Your task to perform on an android device: open app "Booking.com: Hotels and more" Image 0: 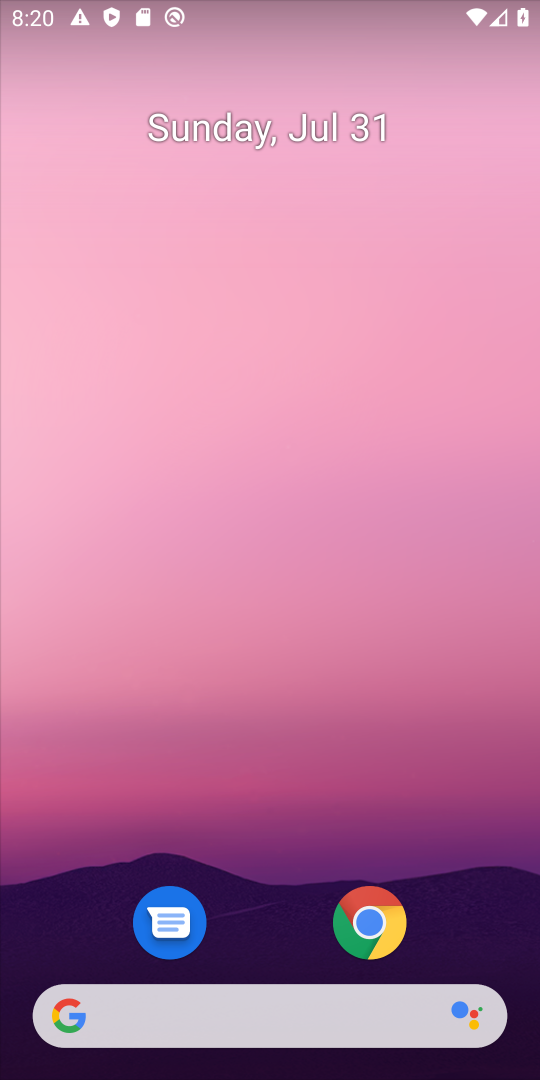
Step 0: drag from (300, 1057) to (249, 488)
Your task to perform on an android device: open app "Booking.com: Hotels and more" Image 1: 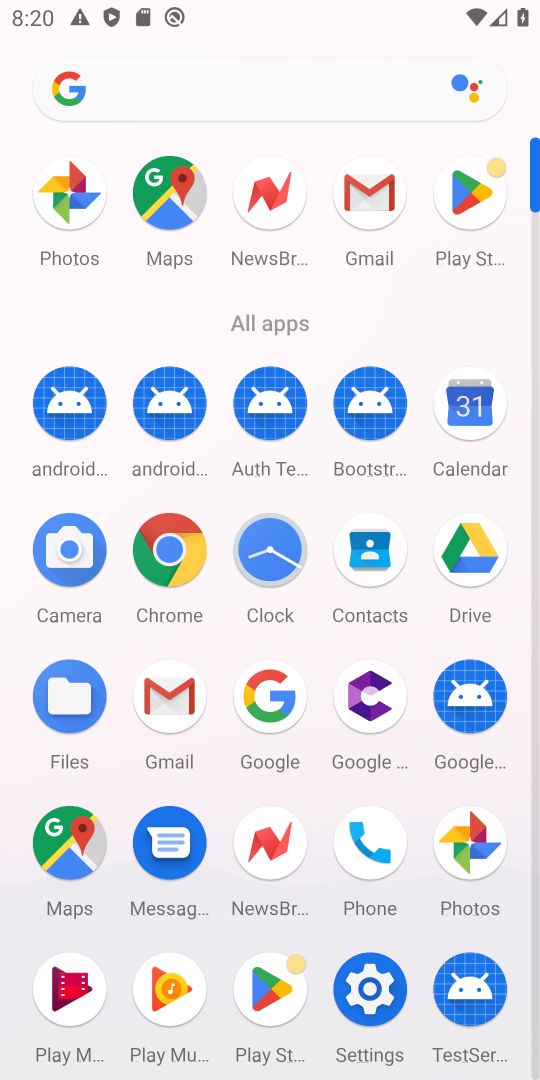
Step 1: click (277, 985)
Your task to perform on an android device: open app "Booking.com: Hotels and more" Image 2: 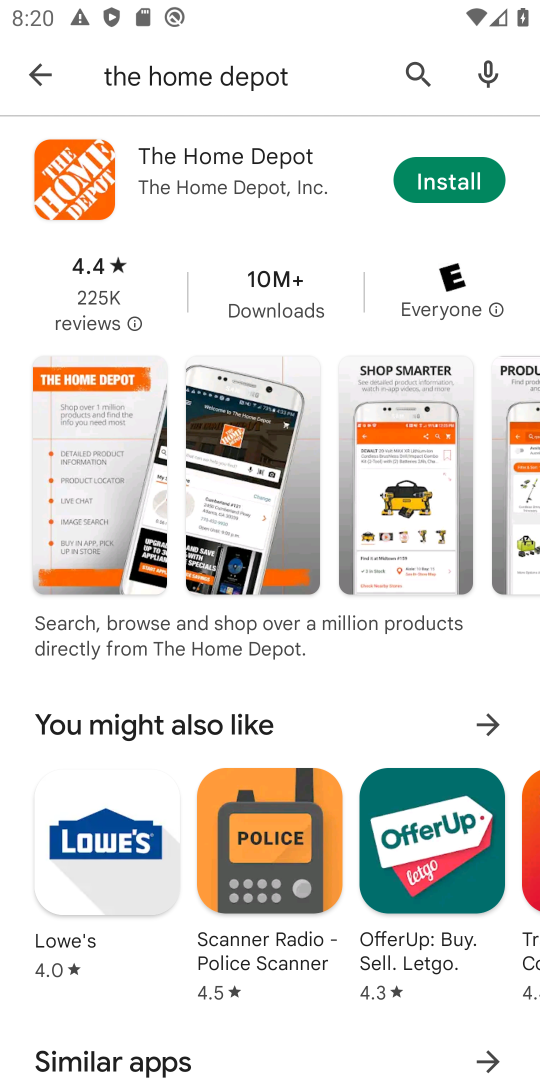
Step 2: click (410, 61)
Your task to perform on an android device: open app "Booking.com: Hotels and more" Image 3: 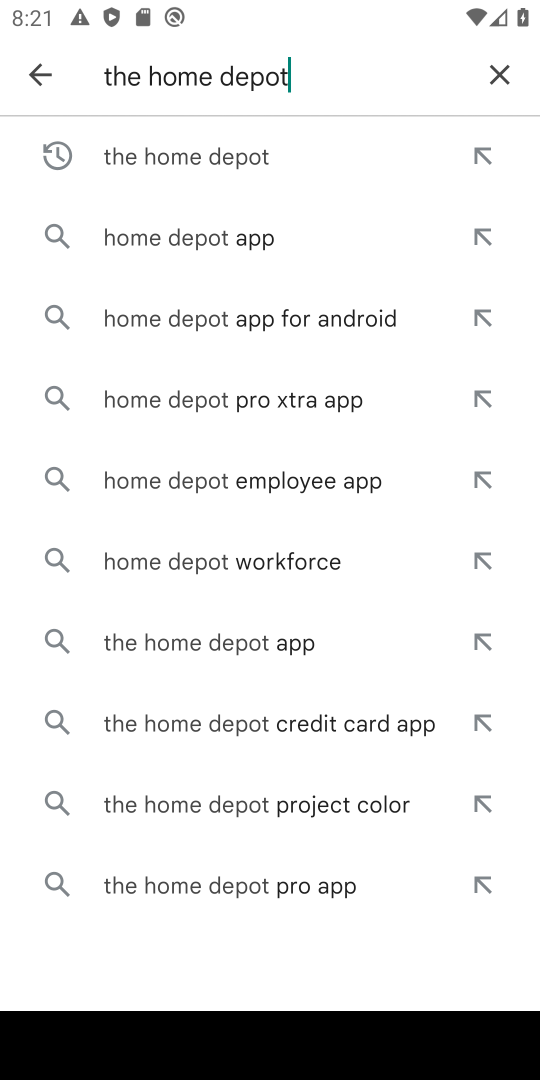
Step 3: click (497, 70)
Your task to perform on an android device: open app "Booking.com: Hotels and more" Image 4: 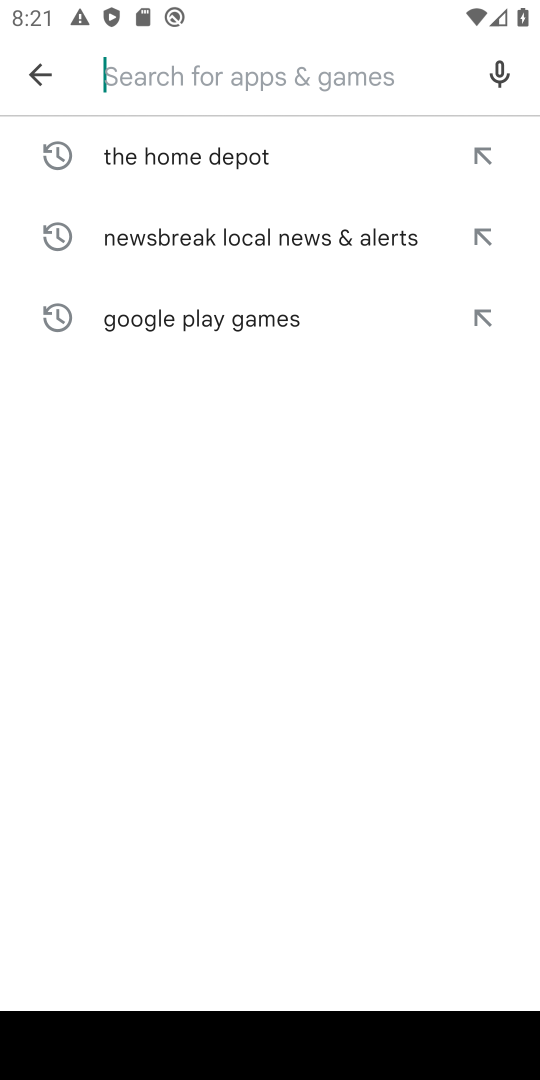
Step 4: click (294, 85)
Your task to perform on an android device: open app "Booking.com: Hotels and more" Image 5: 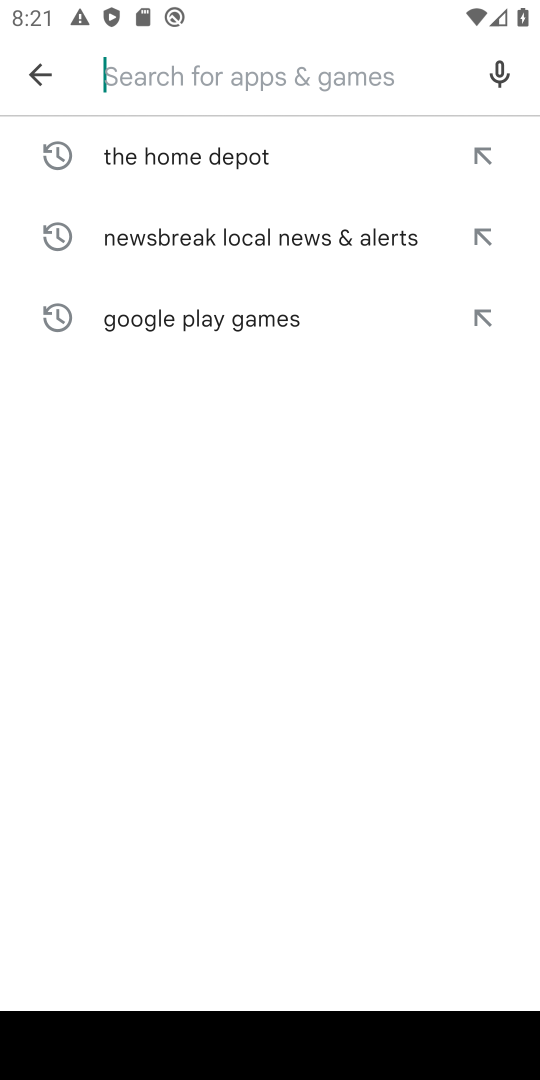
Step 5: type "Booking.com: Hotels and more"
Your task to perform on an android device: open app "Booking.com: Hotels and more" Image 6: 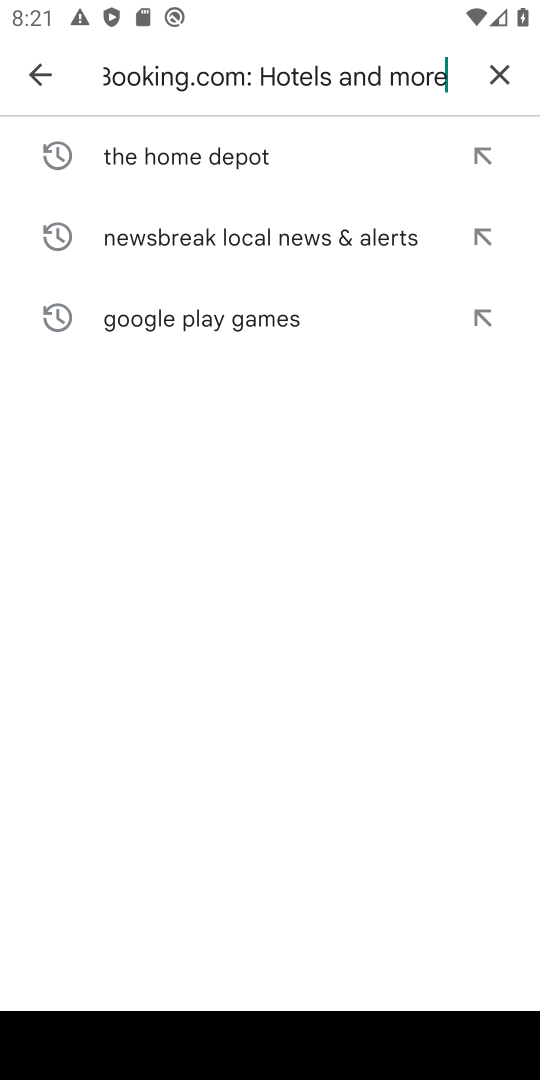
Step 6: type ""
Your task to perform on an android device: open app "Booking.com: Hotels and more" Image 7: 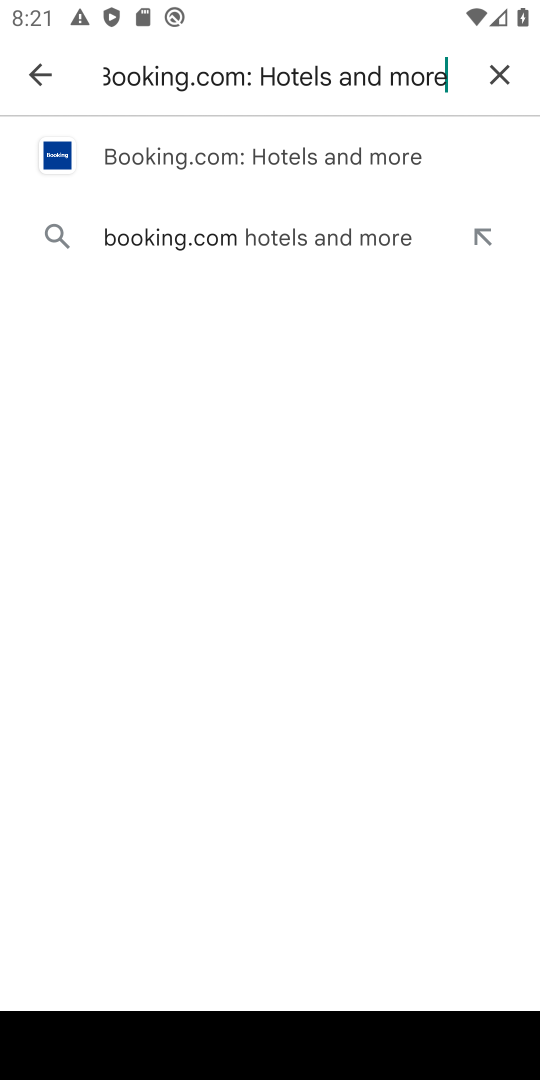
Step 7: click (319, 151)
Your task to perform on an android device: open app "Booking.com: Hotels and more" Image 8: 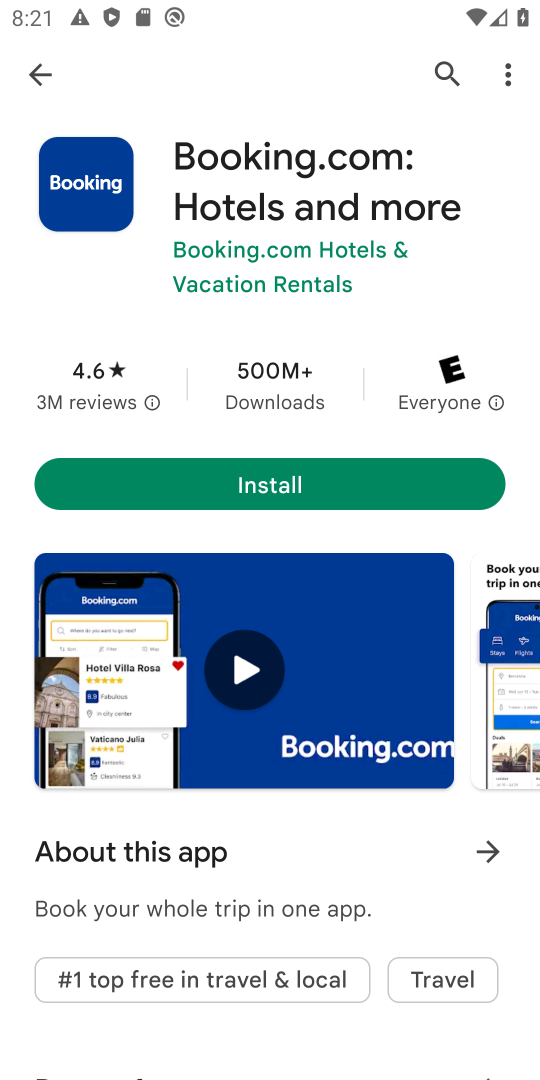
Step 8: task complete